Your task to perform on an android device: empty trash in google photos Image 0: 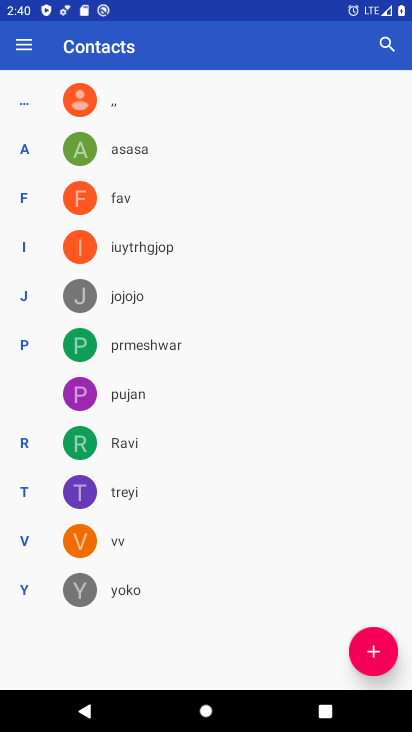
Step 0: press back button
Your task to perform on an android device: empty trash in google photos Image 1: 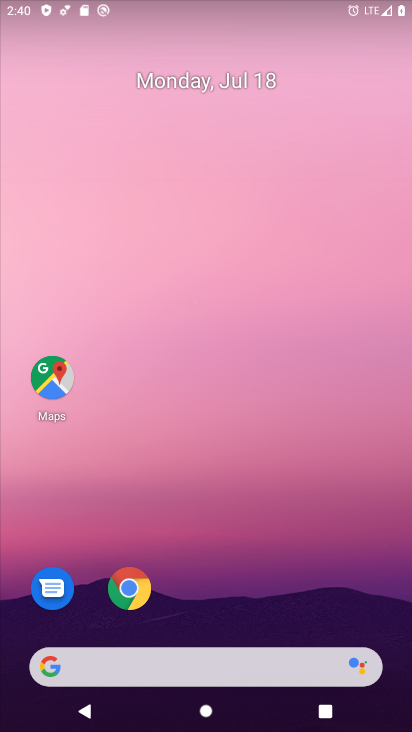
Step 1: drag from (218, 502) to (223, 34)
Your task to perform on an android device: empty trash in google photos Image 2: 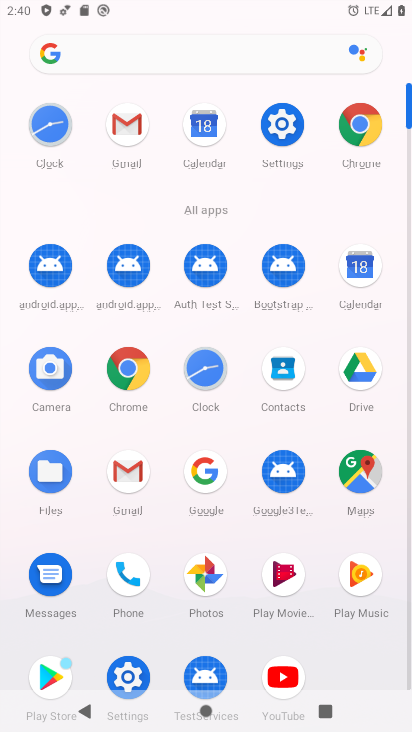
Step 2: click (207, 580)
Your task to perform on an android device: empty trash in google photos Image 3: 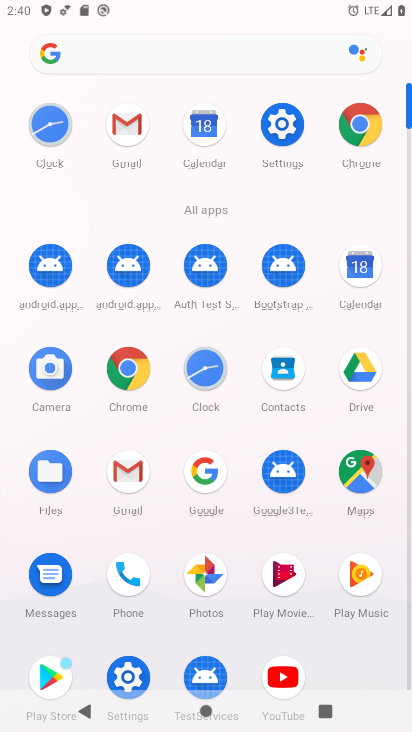
Step 3: click (212, 581)
Your task to perform on an android device: empty trash in google photos Image 4: 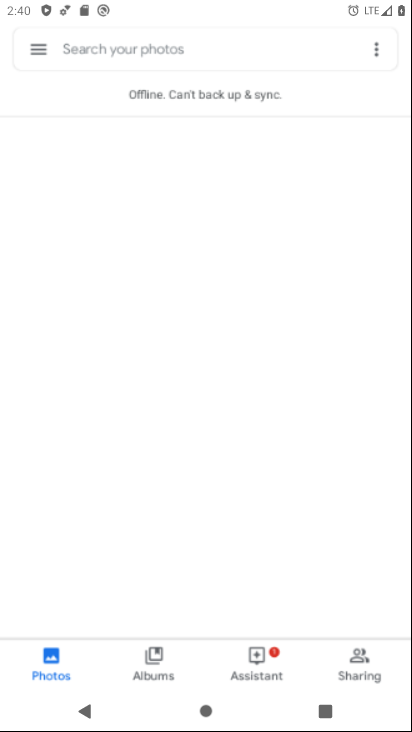
Step 4: click (36, 44)
Your task to perform on an android device: empty trash in google photos Image 5: 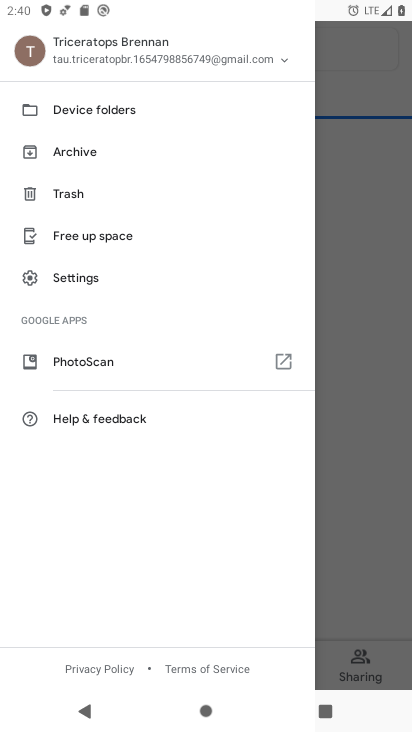
Step 5: click (70, 179)
Your task to perform on an android device: empty trash in google photos Image 6: 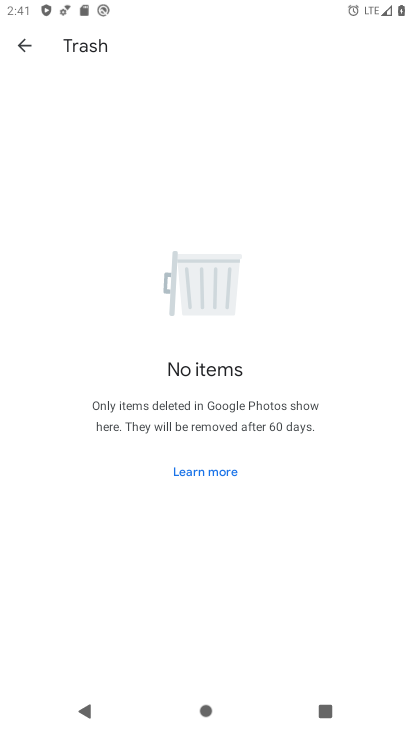
Step 6: task complete